Your task to perform on an android device: open chrome privacy settings Image 0: 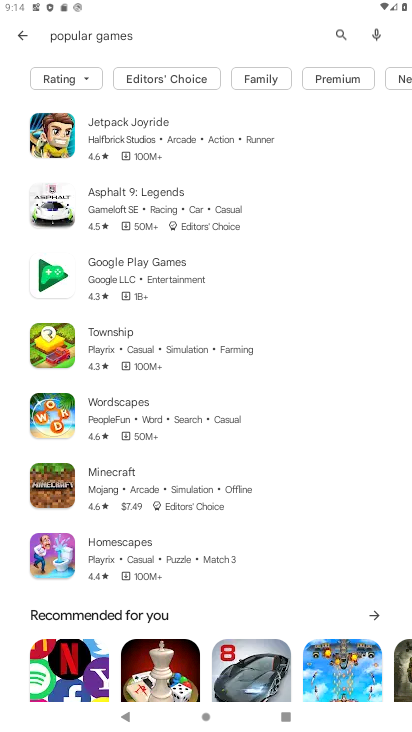
Step 0: press home button
Your task to perform on an android device: open chrome privacy settings Image 1: 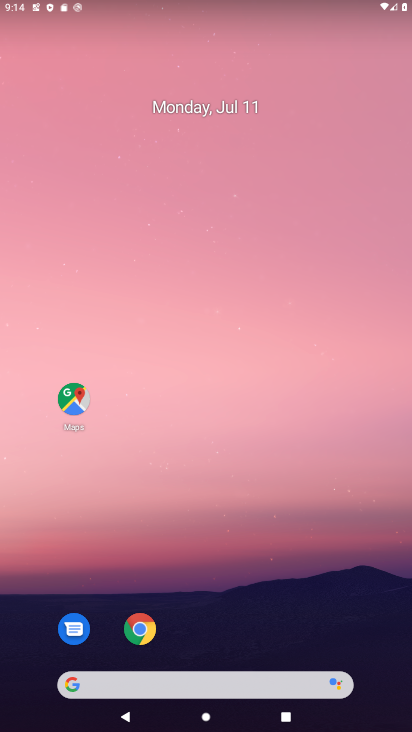
Step 1: click (127, 627)
Your task to perform on an android device: open chrome privacy settings Image 2: 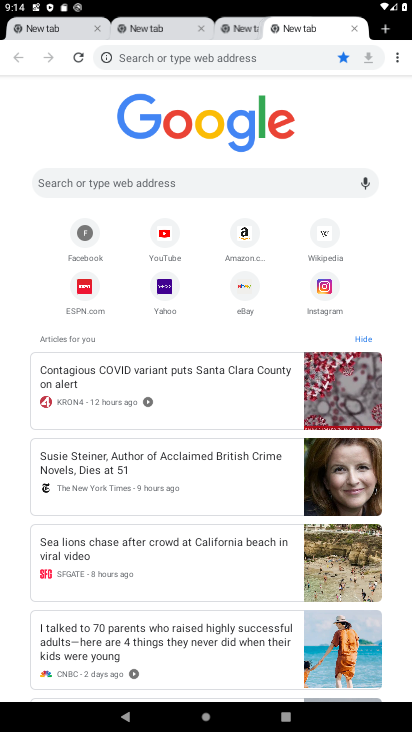
Step 2: click (398, 55)
Your task to perform on an android device: open chrome privacy settings Image 3: 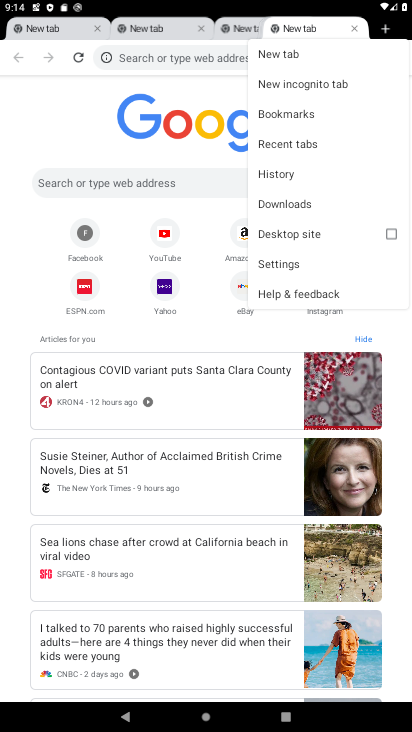
Step 3: click (284, 263)
Your task to perform on an android device: open chrome privacy settings Image 4: 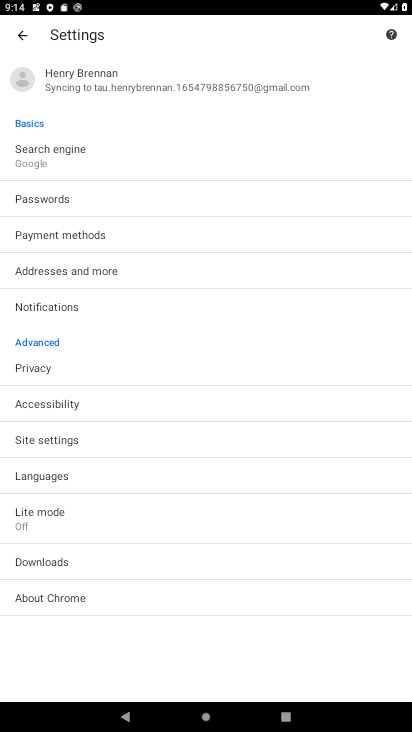
Step 4: click (41, 367)
Your task to perform on an android device: open chrome privacy settings Image 5: 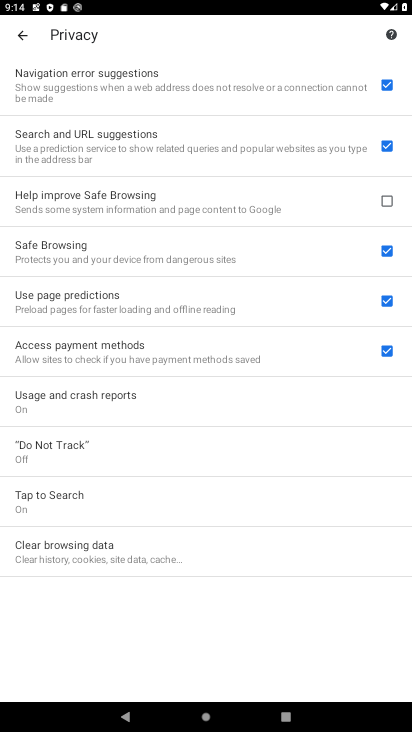
Step 5: task complete